Your task to perform on an android device: Go to battery settings Image 0: 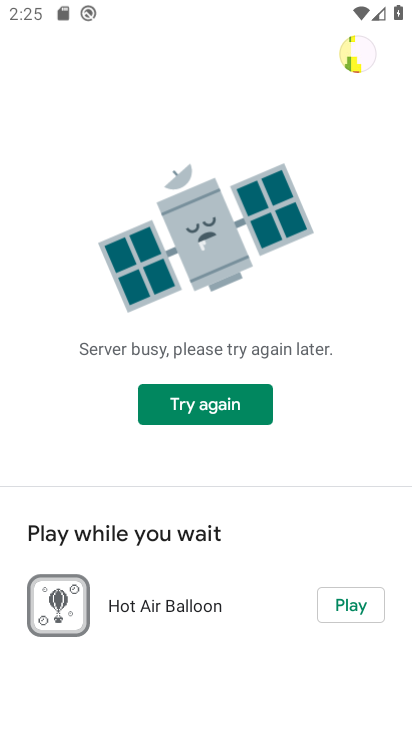
Step 0: press home button
Your task to perform on an android device: Go to battery settings Image 1: 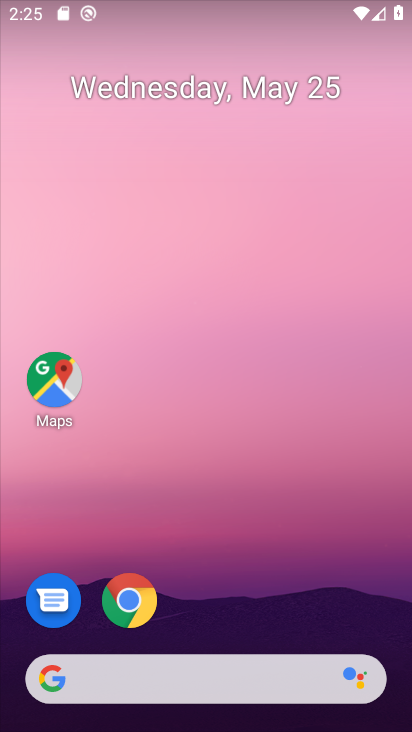
Step 1: drag from (217, 641) to (321, 99)
Your task to perform on an android device: Go to battery settings Image 2: 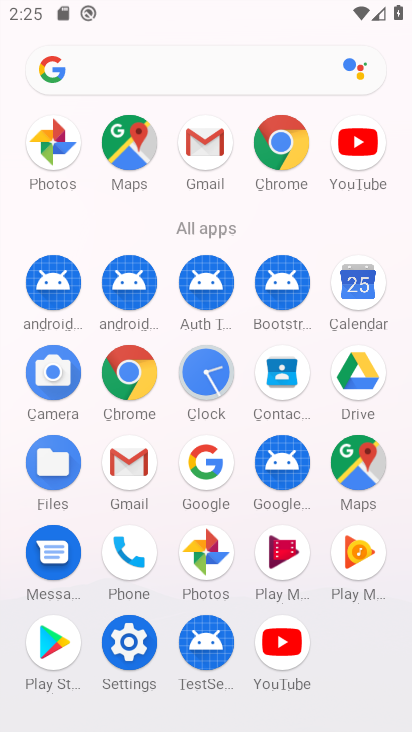
Step 2: drag from (159, 630) to (201, 437)
Your task to perform on an android device: Go to battery settings Image 3: 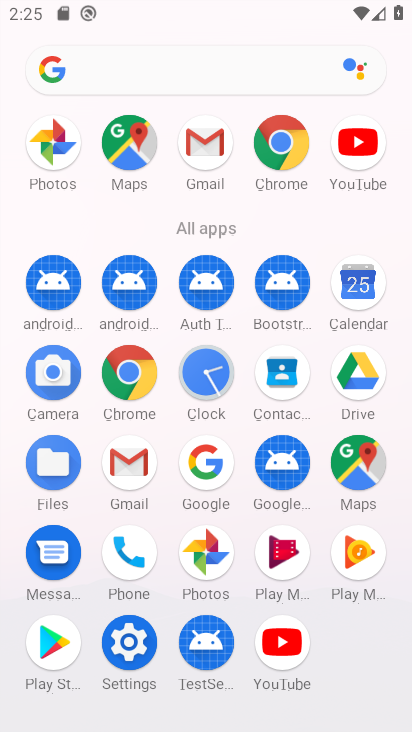
Step 3: click (122, 635)
Your task to perform on an android device: Go to battery settings Image 4: 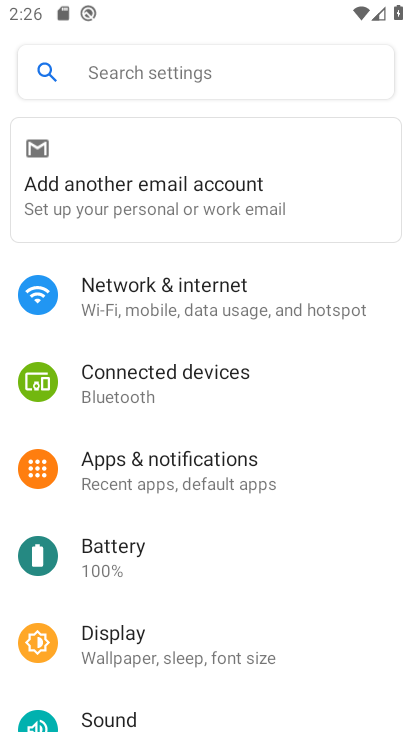
Step 4: drag from (182, 621) to (303, 236)
Your task to perform on an android device: Go to battery settings Image 5: 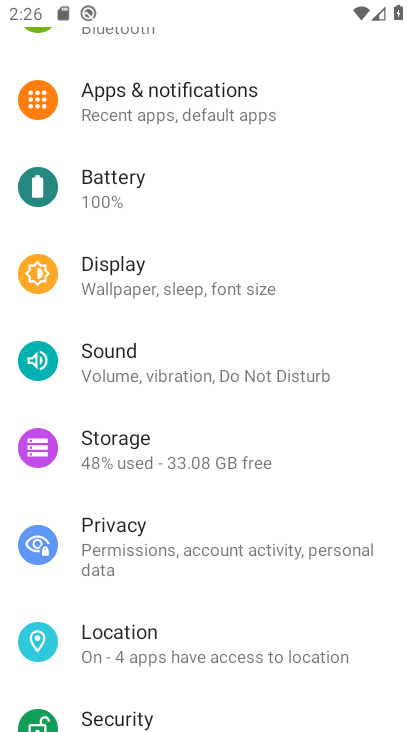
Step 5: click (191, 185)
Your task to perform on an android device: Go to battery settings Image 6: 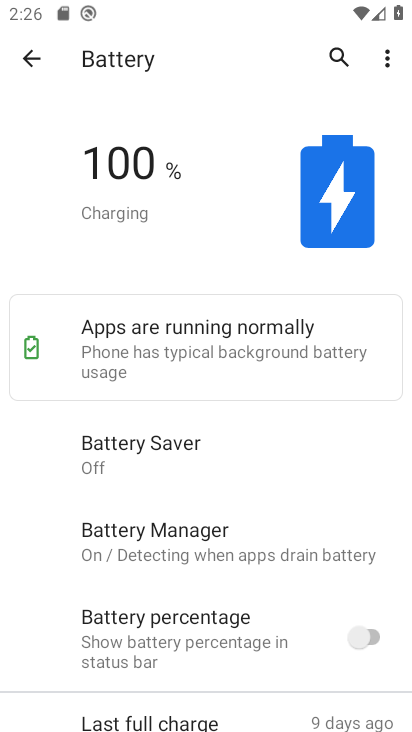
Step 6: task complete